Your task to perform on an android device: turn off javascript in the chrome app Image 0: 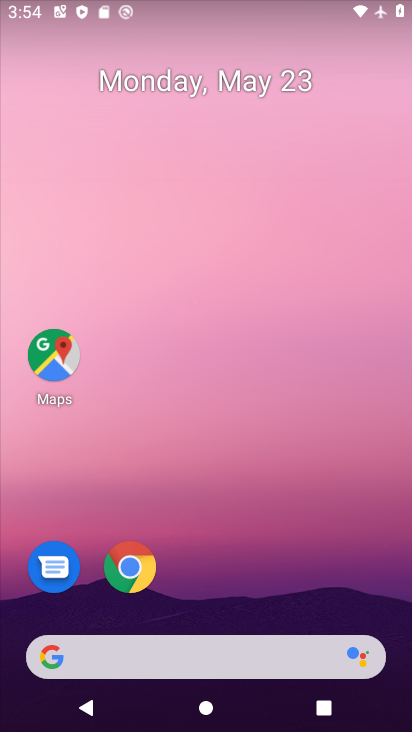
Step 0: click (128, 568)
Your task to perform on an android device: turn off javascript in the chrome app Image 1: 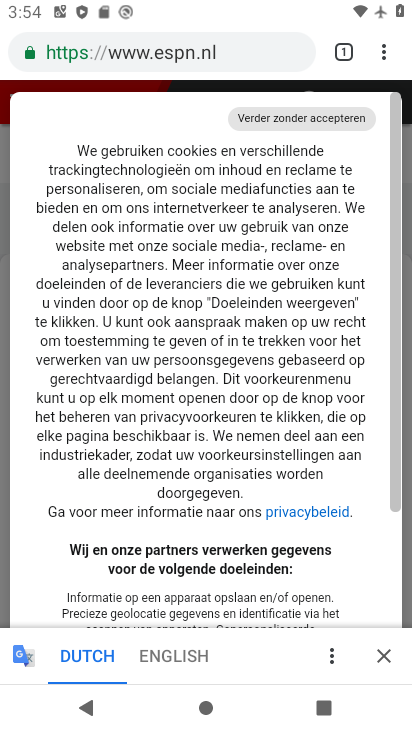
Step 1: click (379, 57)
Your task to perform on an android device: turn off javascript in the chrome app Image 2: 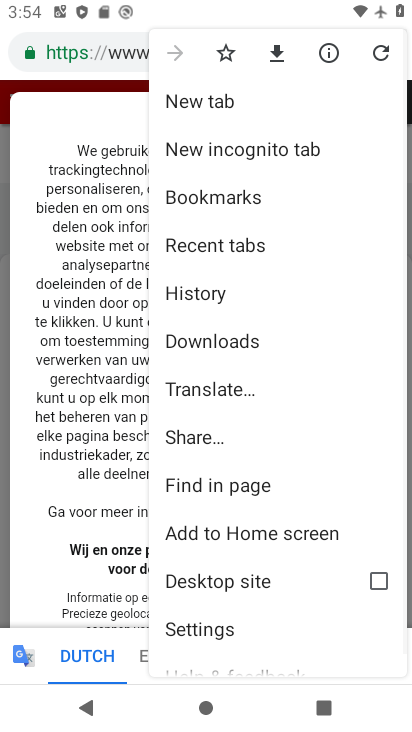
Step 2: drag from (280, 548) to (278, 227)
Your task to perform on an android device: turn off javascript in the chrome app Image 3: 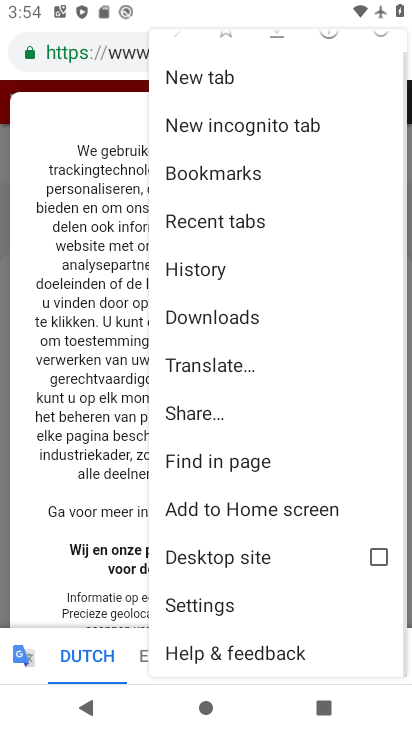
Step 3: click (226, 608)
Your task to perform on an android device: turn off javascript in the chrome app Image 4: 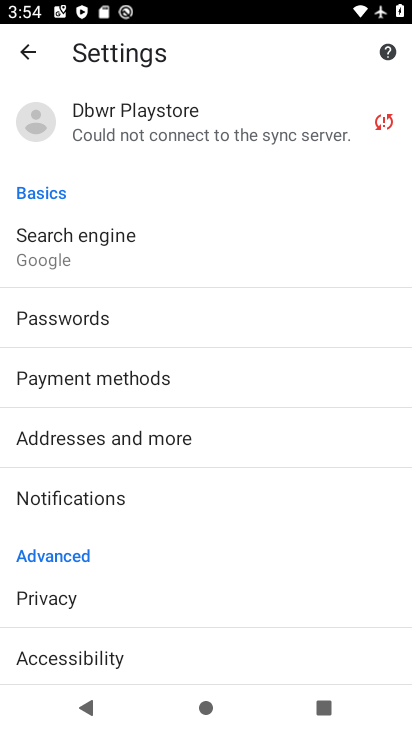
Step 4: drag from (193, 620) to (133, 230)
Your task to perform on an android device: turn off javascript in the chrome app Image 5: 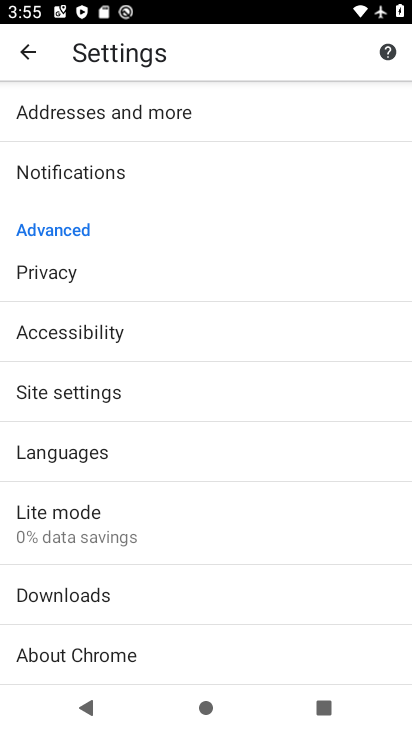
Step 5: click (42, 399)
Your task to perform on an android device: turn off javascript in the chrome app Image 6: 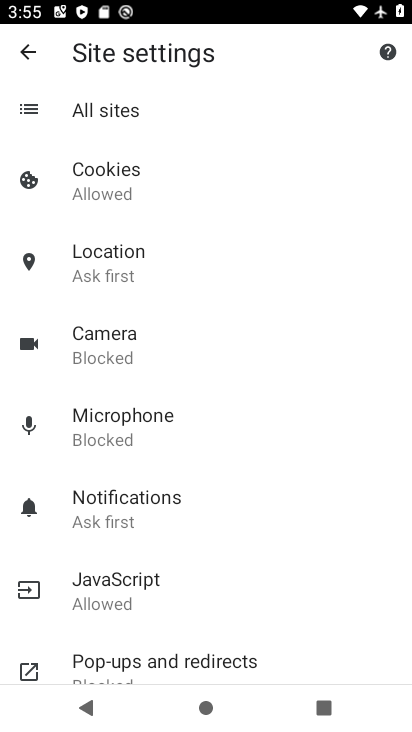
Step 6: click (123, 573)
Your task to perform on an android device: turn off javascript in the chrome app Image 7: 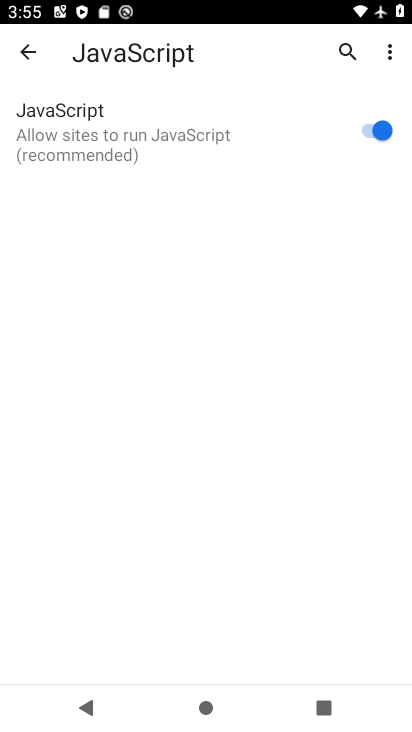
Step 7: click (364, 133)
Your task to perform on an android device: turn off javascript in the chrome app Image 8: 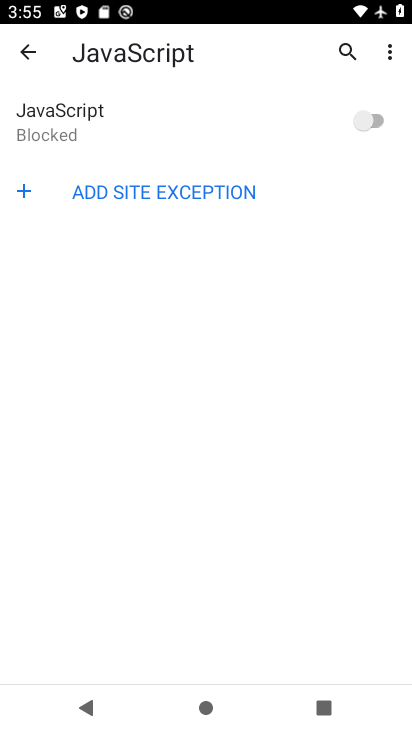
Step 8: task complete